Your task to perform on an android device: remove spam from my inbox in the gmail app Image 0: 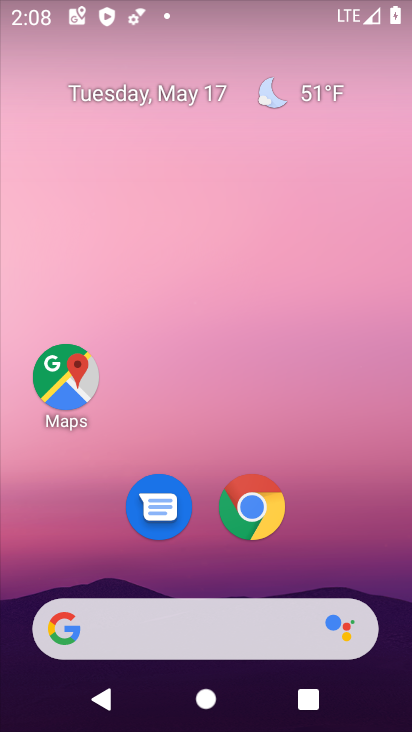
Step 0: drag from (303, 558) to (328, 43)
Your task to perform on an android device: remove spam from my inbox in the gmail app Image 1: 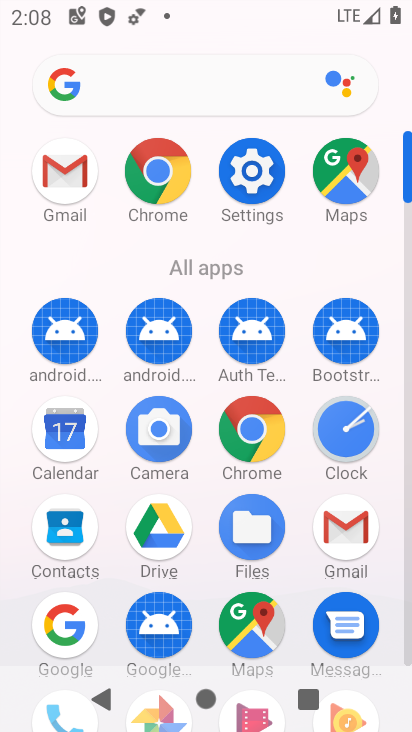
Step 1: click (345, 520)
Your task to perform on an android device: remove spam from my inbox in the gmail app Image 2: 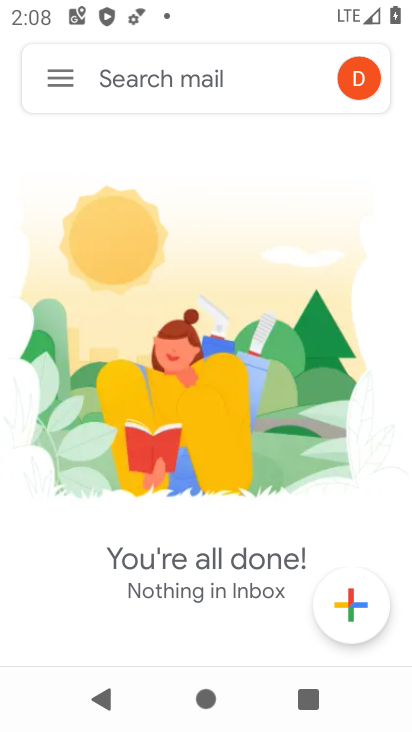
Step 2: click (53, 70)
Your task to perform on an android device: remove spam from my inbox in the gmail app Image 3: 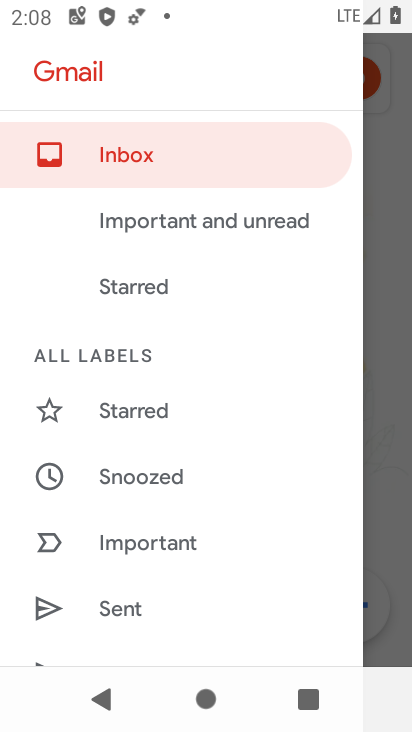
Step 3: drag from (148, 491) to (188, 265)
Your task to perform on an android device: remove spam from my inbox in the gmail app Image 4: 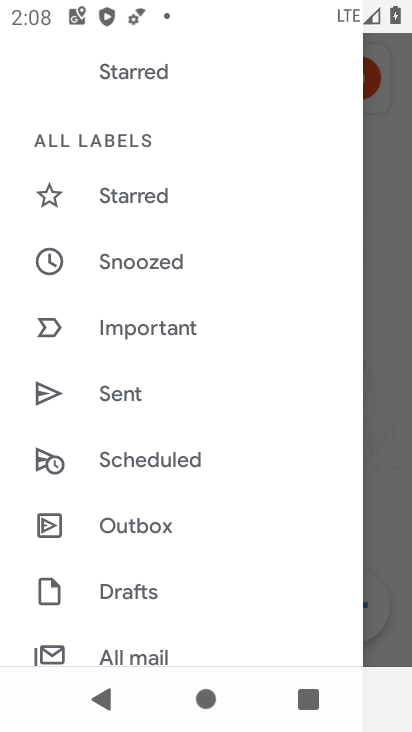
Step 4: drag from (158, 491) to (131, 253)
Your task to perform on an android device: remove spam from my inbox in the gmail app Image 5: 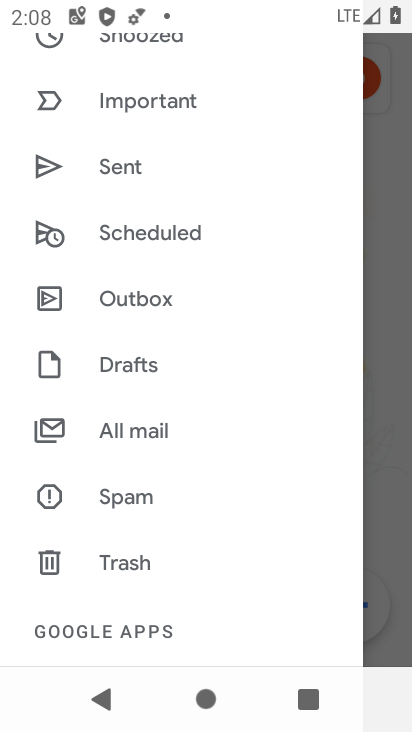
Step 5: click (93, 502)
Your task to perform on an android device: remove spam from my inbox in the gmail app Image 6: 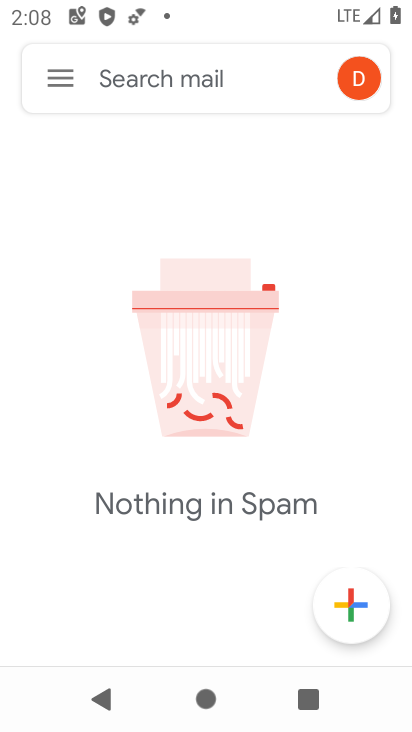
Step 6: task complete